Your task to perform on an android device: show emergency info Image 0: 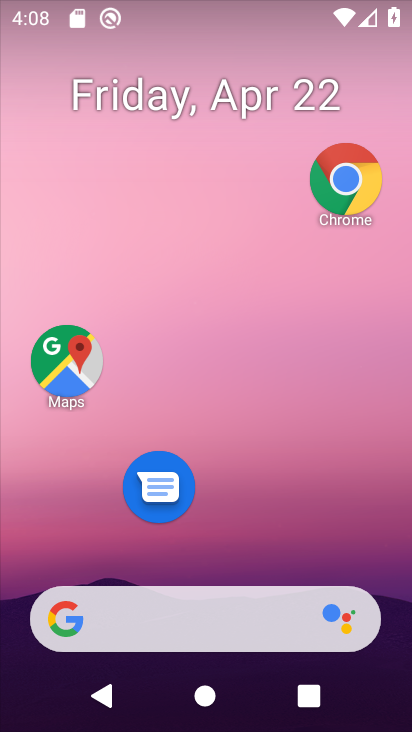
Step 0: drag from (312, 550) to (317, 53)
Your task to perform on an android device: show emergency info Image 1: 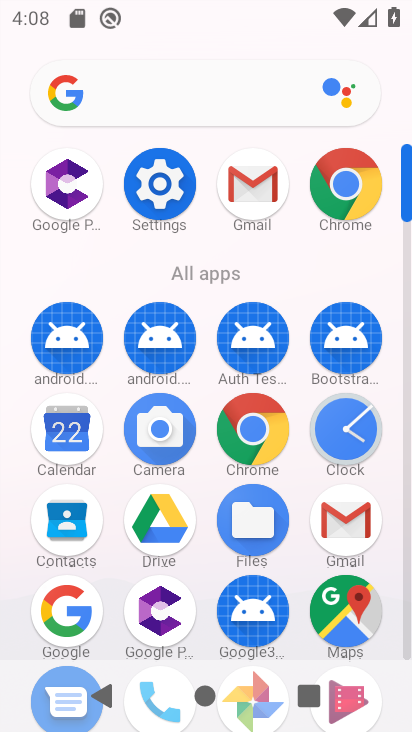
Step 1: click (145, 195)
Your task to perform on an android device: show emergency info Image 2: 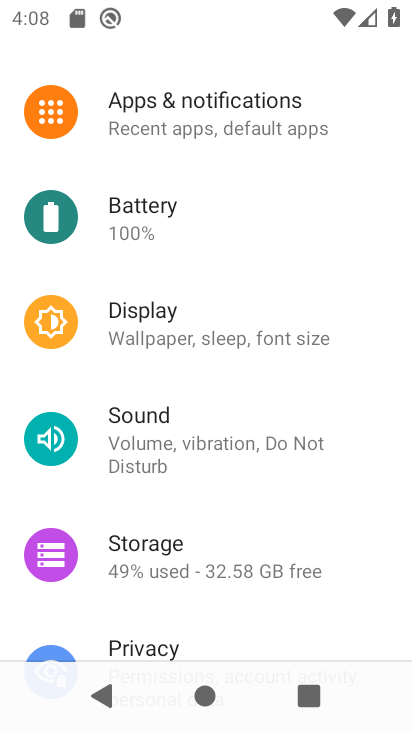
Step 2: drag from (159, 520) to (201, 80)
Your task to perform on an android device: show emergency info Image 3: 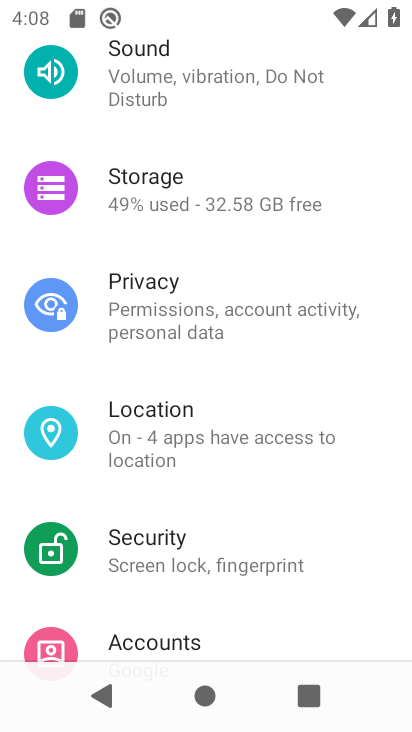
Step 3: drag from (251, 520) to (265, 124)
Your task to perform on an android device: show emergency info Image 4: 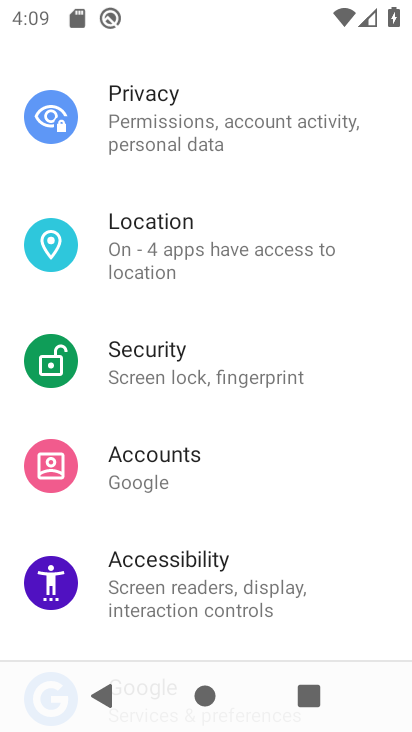
Step 4: drag from (244, 430) to (269, 5)
Your task to perform on an android device: show emergency info Image 5: 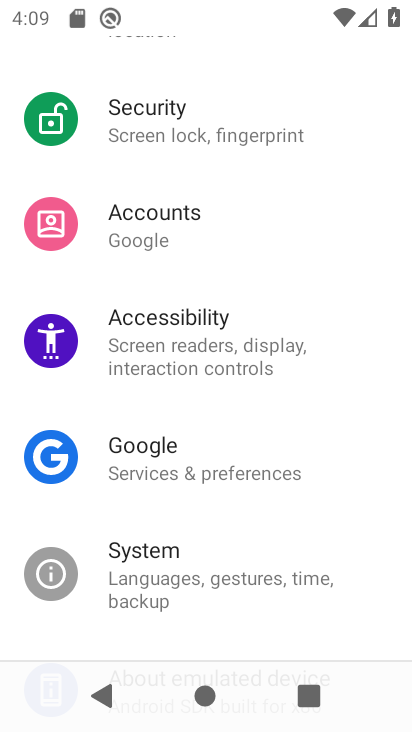
Step 5: drag from (227, 418) to (240, 94)
Your task to perform on an android device: show emergency info Image 6: 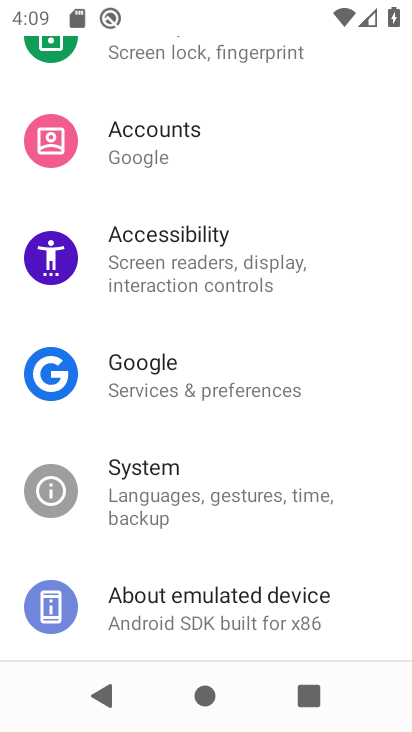
Step 6: drag from (286, 375) to (283, 129)
Your task to perform on an android device: show emergency info Image 7: 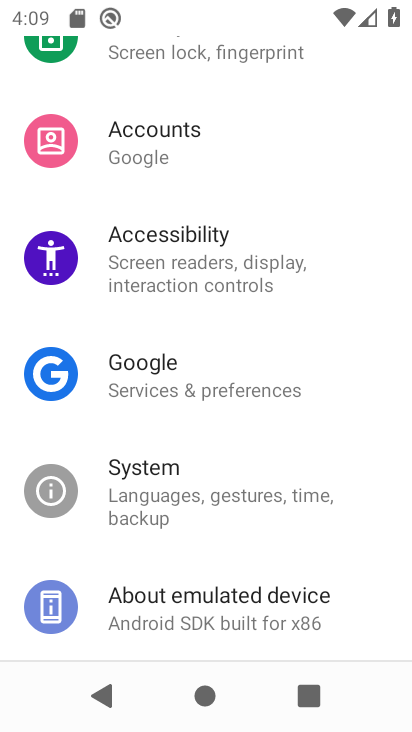
Step 7: click (227, 610)
Your task to perform on an android device: show emergency info Image 8: 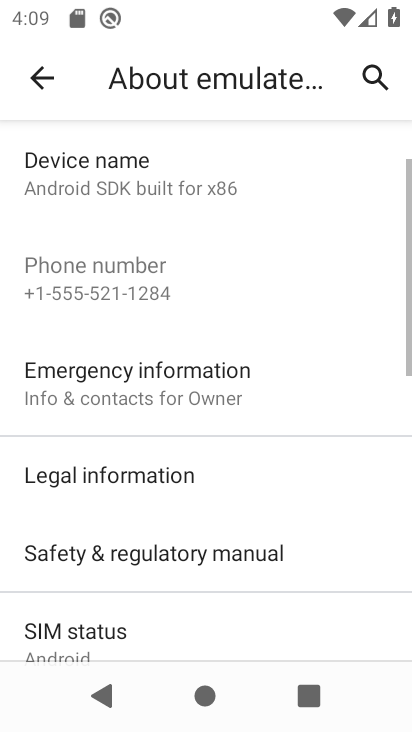
Step 8: click (159, 372)
Your task to perform on an android device: show emergency info Image 9: 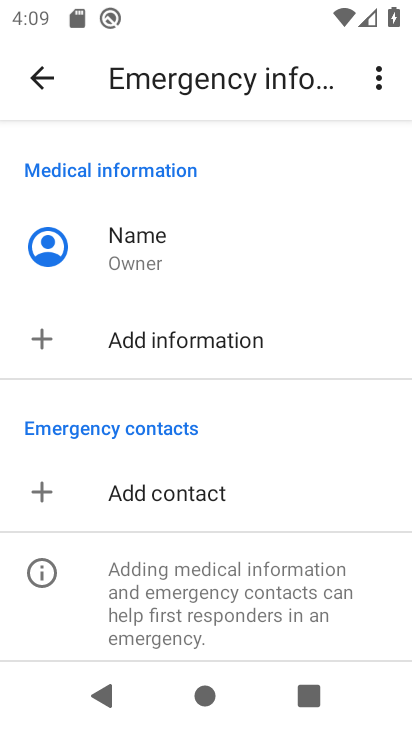
Step 9: task complete